Your task to perform on an android device: Go to notification settings Image 0: 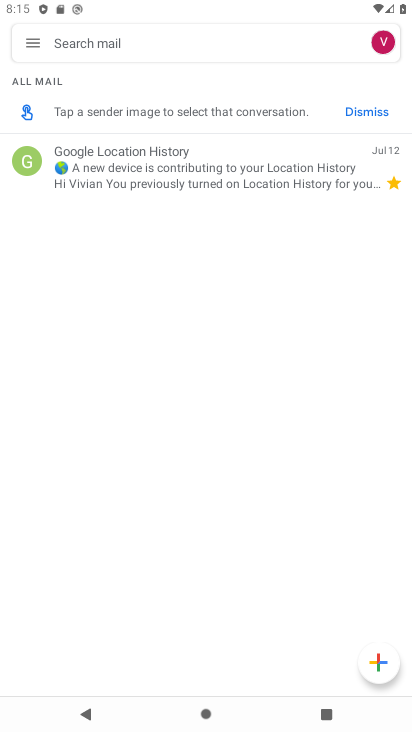
Step 0: press home button
Your task to perform on an android device: Go to notification settings Image 1: 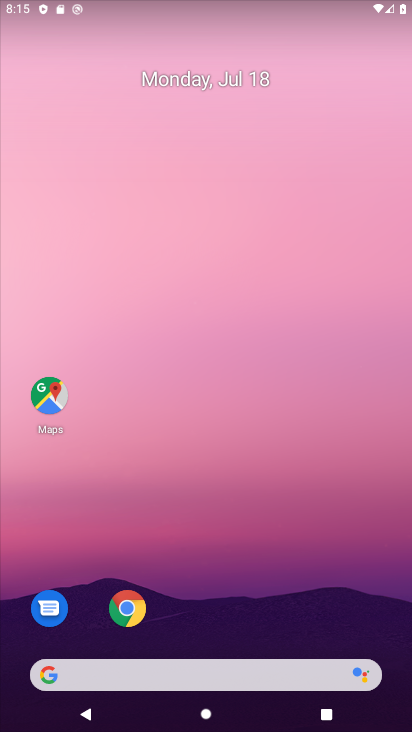
Step 1: drag from (302, 624) to (225, 248)
Your task to perform on an android device: Go to notification settings Image 2: 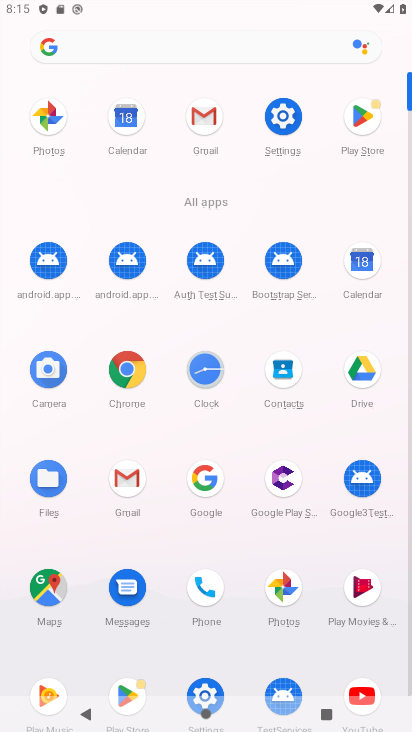
Step 2: click (284, 104)
Your task to perform on an android device: Go to notification settings Image 3: 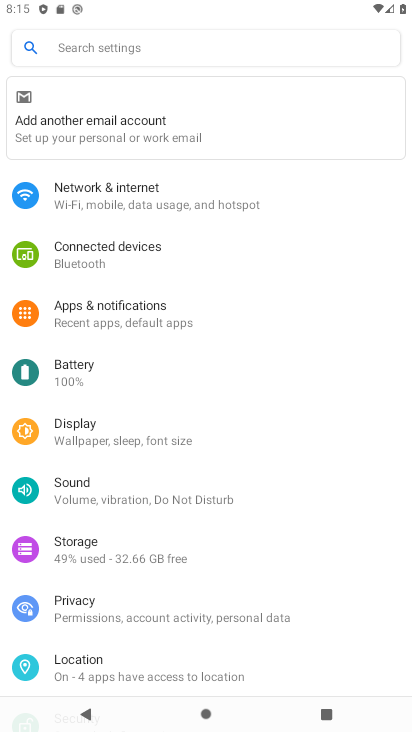
Step 3: click (141, 311)
Your task to perform on an android device: Go to notification settings Image 4: 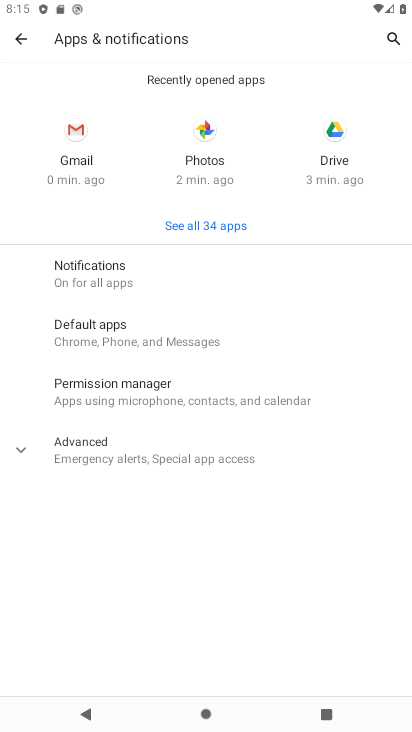
Step 4: click (153, 280)
Your task to perform on an android device: Go to notification settings Image 5: 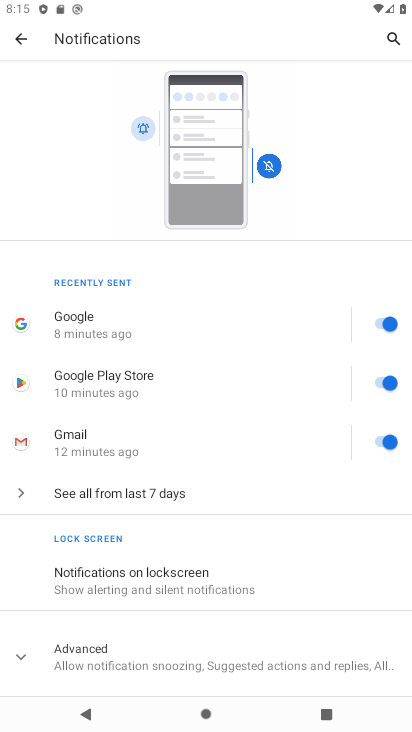
Step 5: task complete